Your task to perform on an android device: Empty the shopping cart on target.com. Image 0: 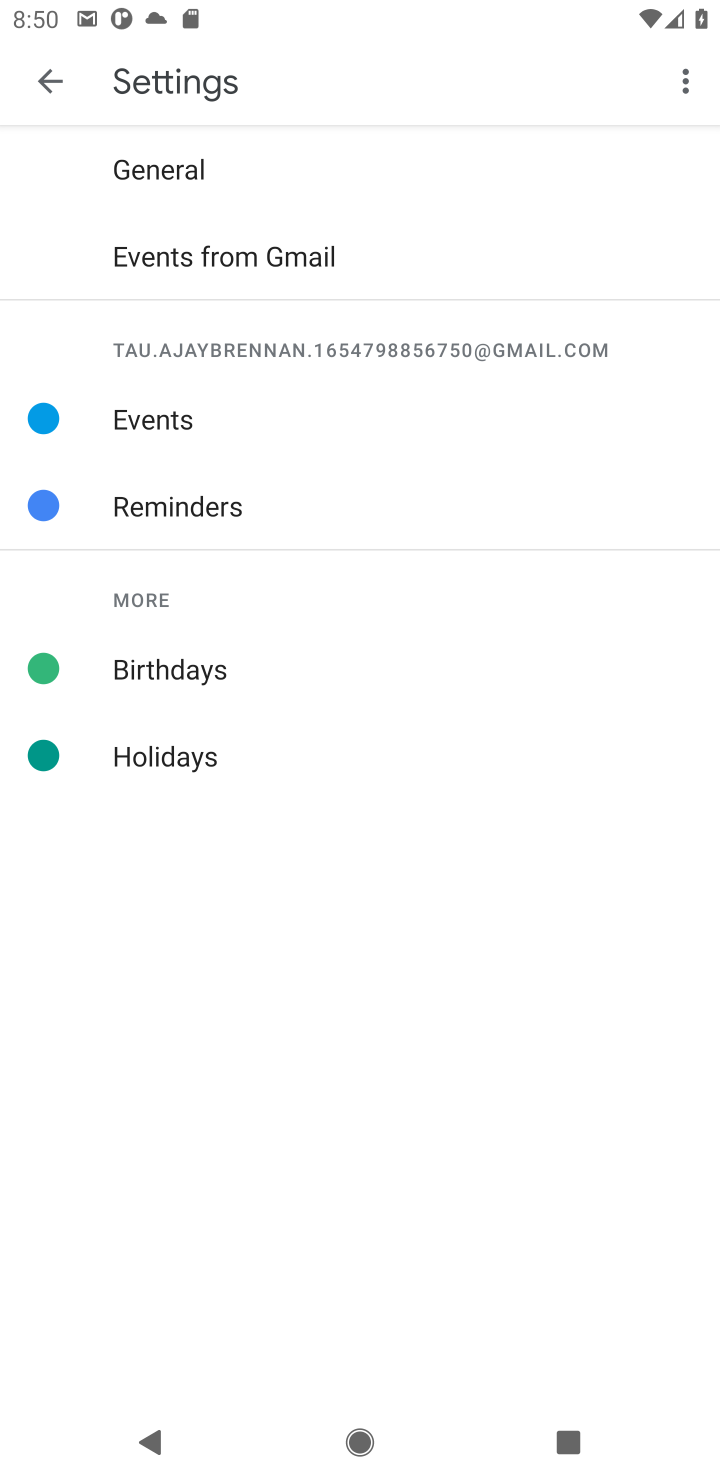
Step 0: click (507, 1172)
Your task to perform on an android device: Empty the shopping cart on target.com. Image 1: 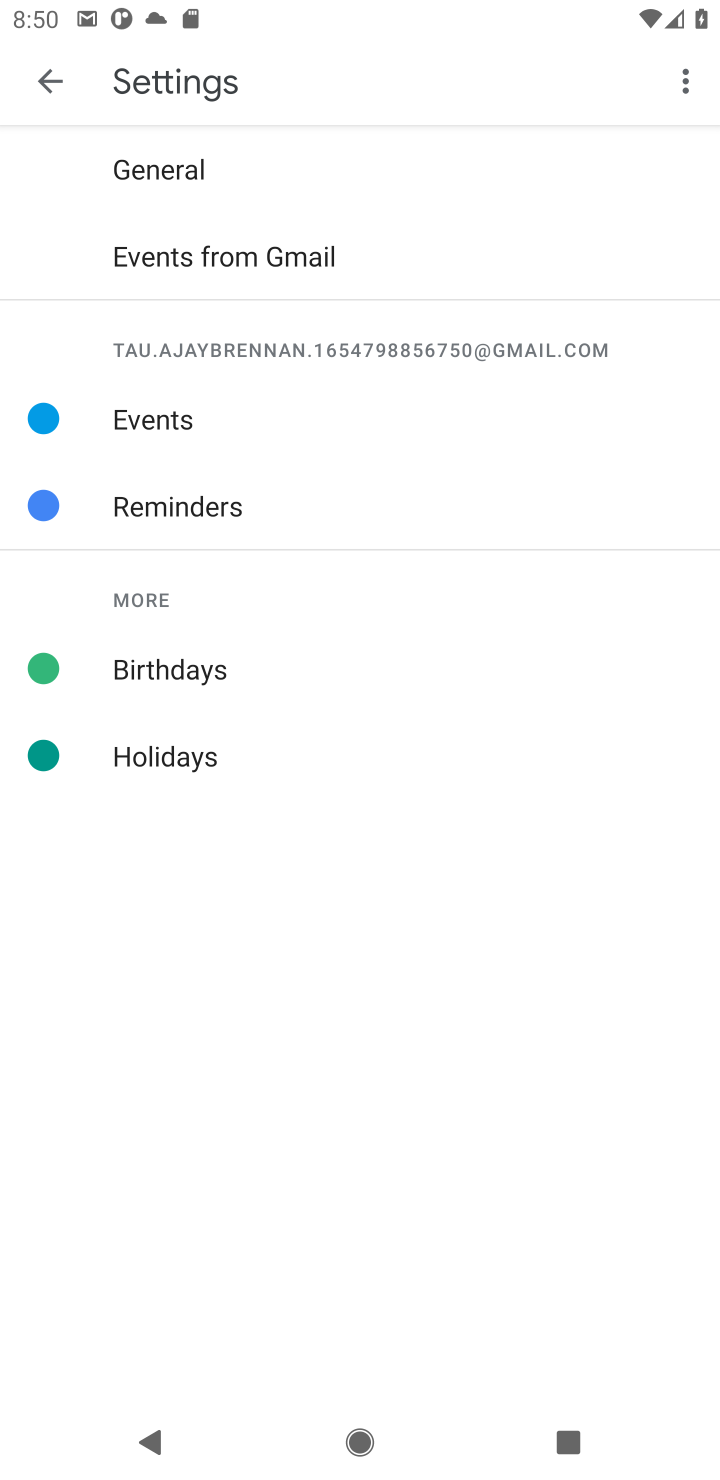
Step 1: press home button
Your task to perform on an android device: Empty the shopping cart on target.com. Image 2: 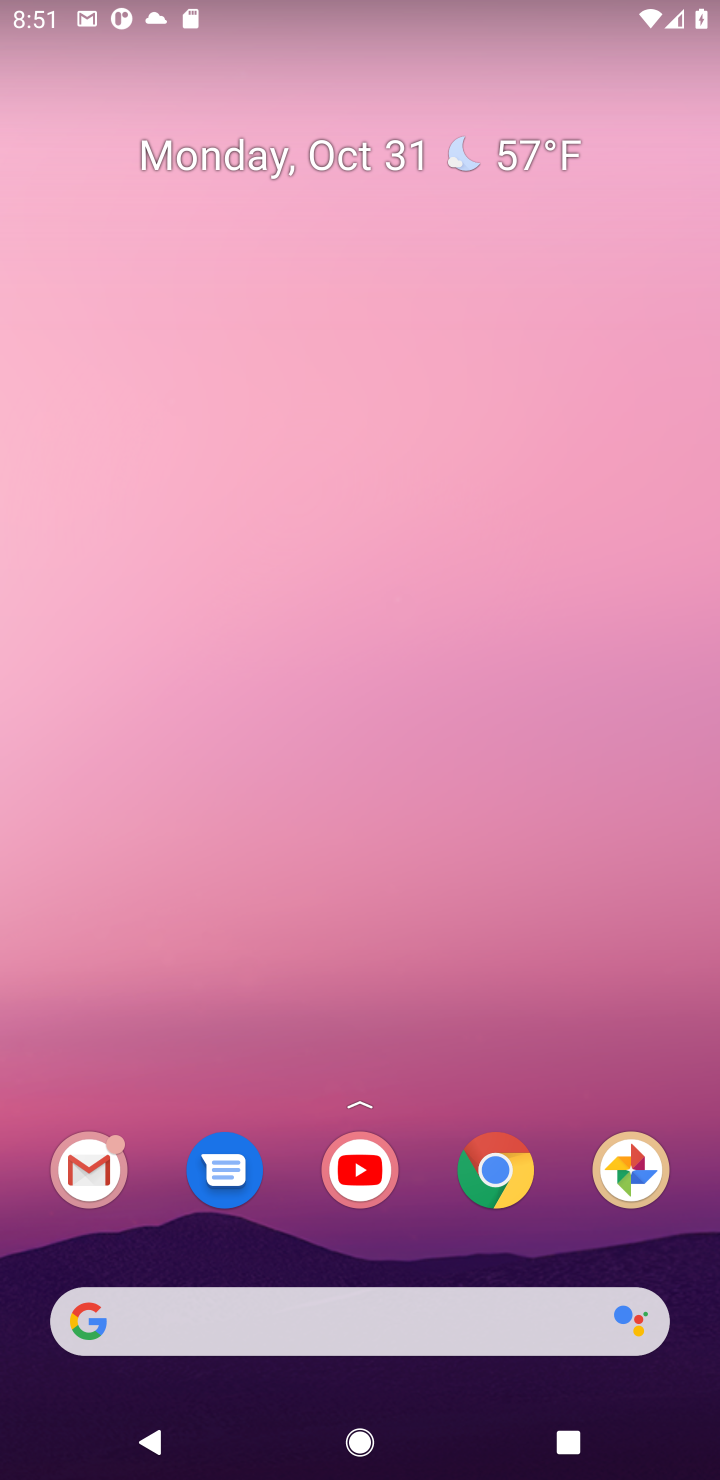
Step 2: click (461, 1150)
Your task to perform on an android device: Empty the shopping cart on target.com. Image 3: 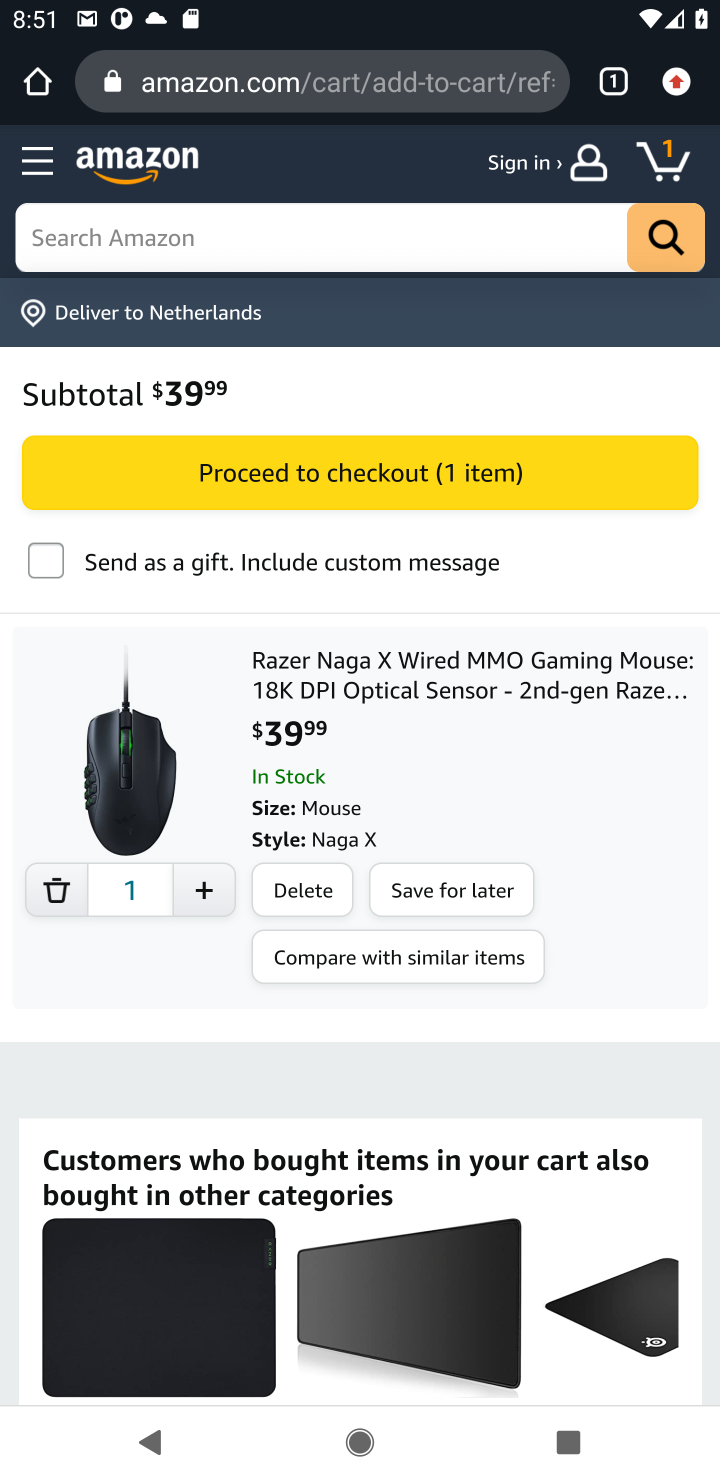
Step 3: click (322, 90)
Your task to perform on an android device: Empty the shopping cart on target.com. Image 4: 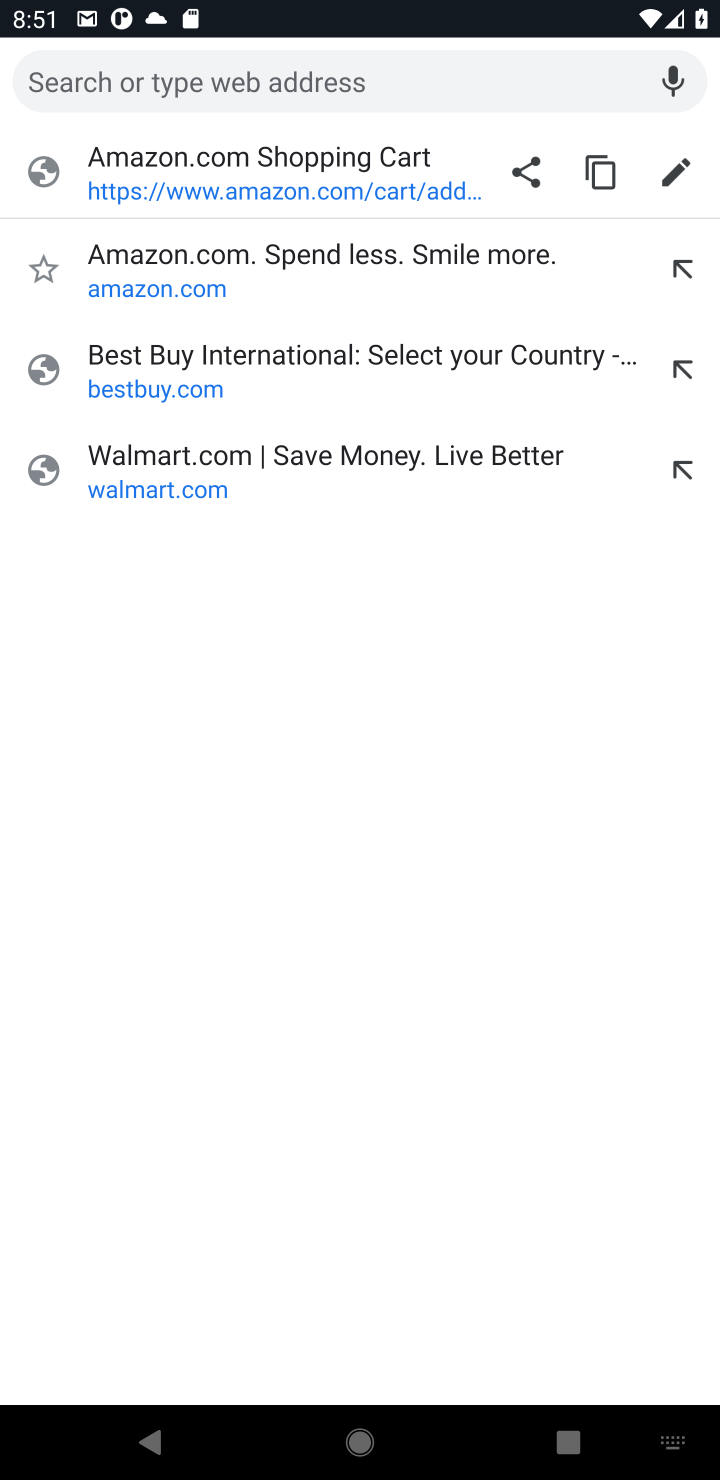
Step 4: type "ebay"
Your task to perform on an android device: Empty the shopping cart on target.com. Image 5: 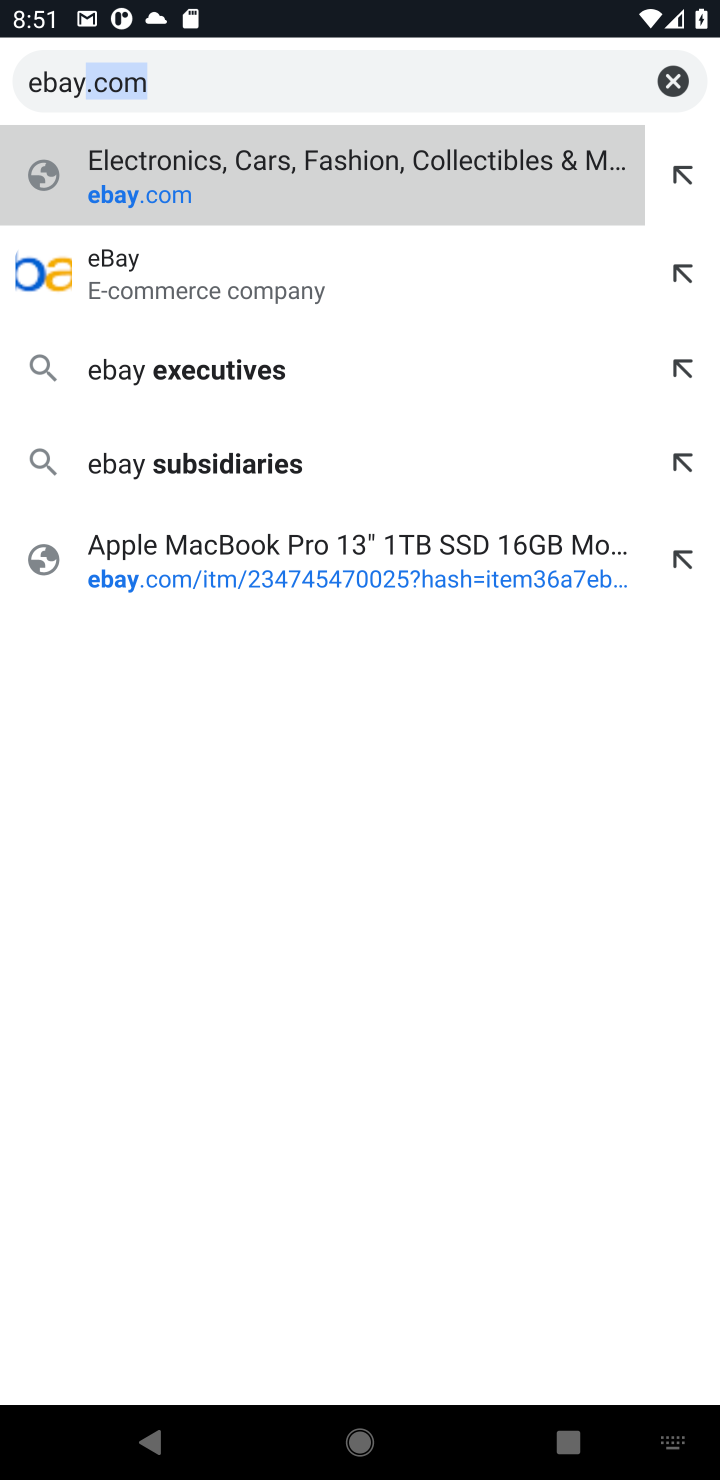
Step 5: click (370, 305)
Your task to perform on an android device: Empty the shopping cart on target.com. Image 6: 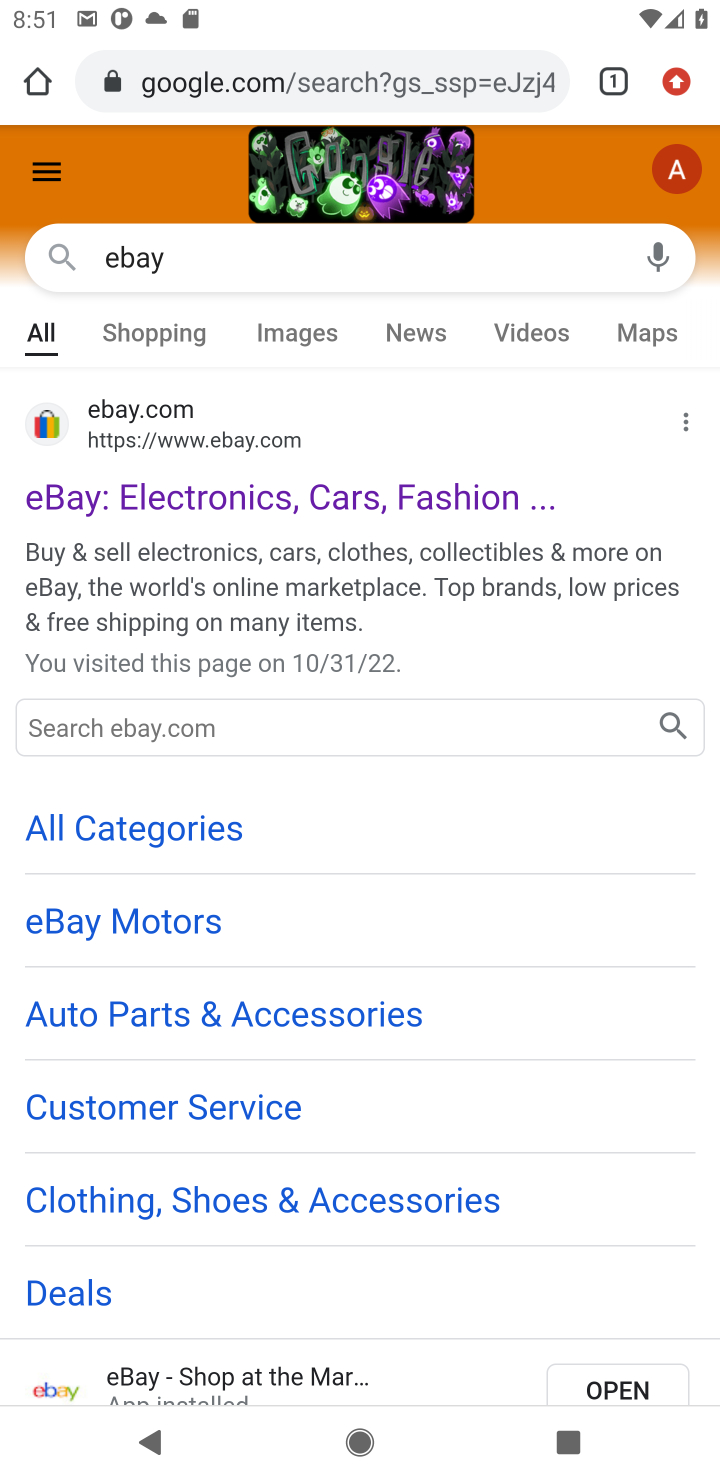
Step 6: click (414, 497)
Your task to perform on an android device: Empty the shopping cart on target.com. Image 7: 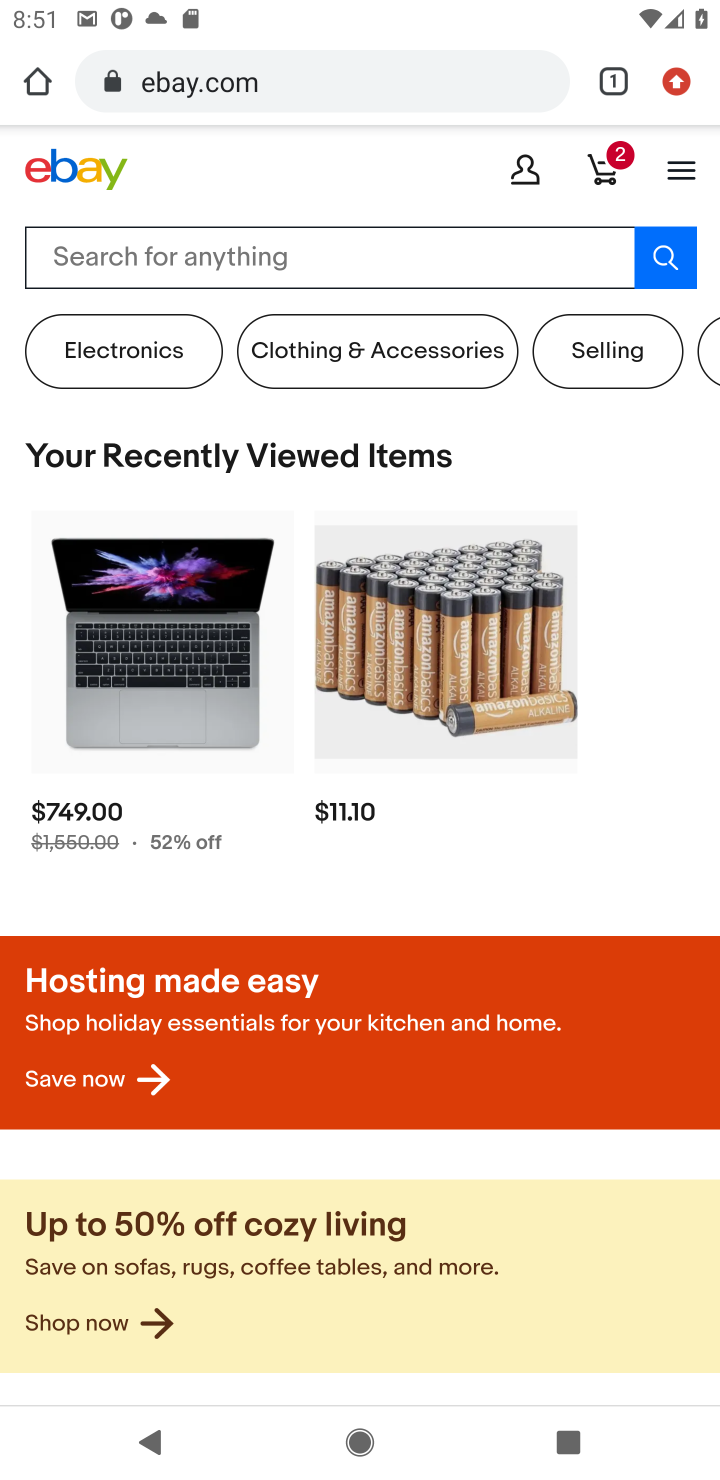
Step 7: click (618, 144)
Your task to perform on an android device: Empty the shopping cart on target.com. Image 8: 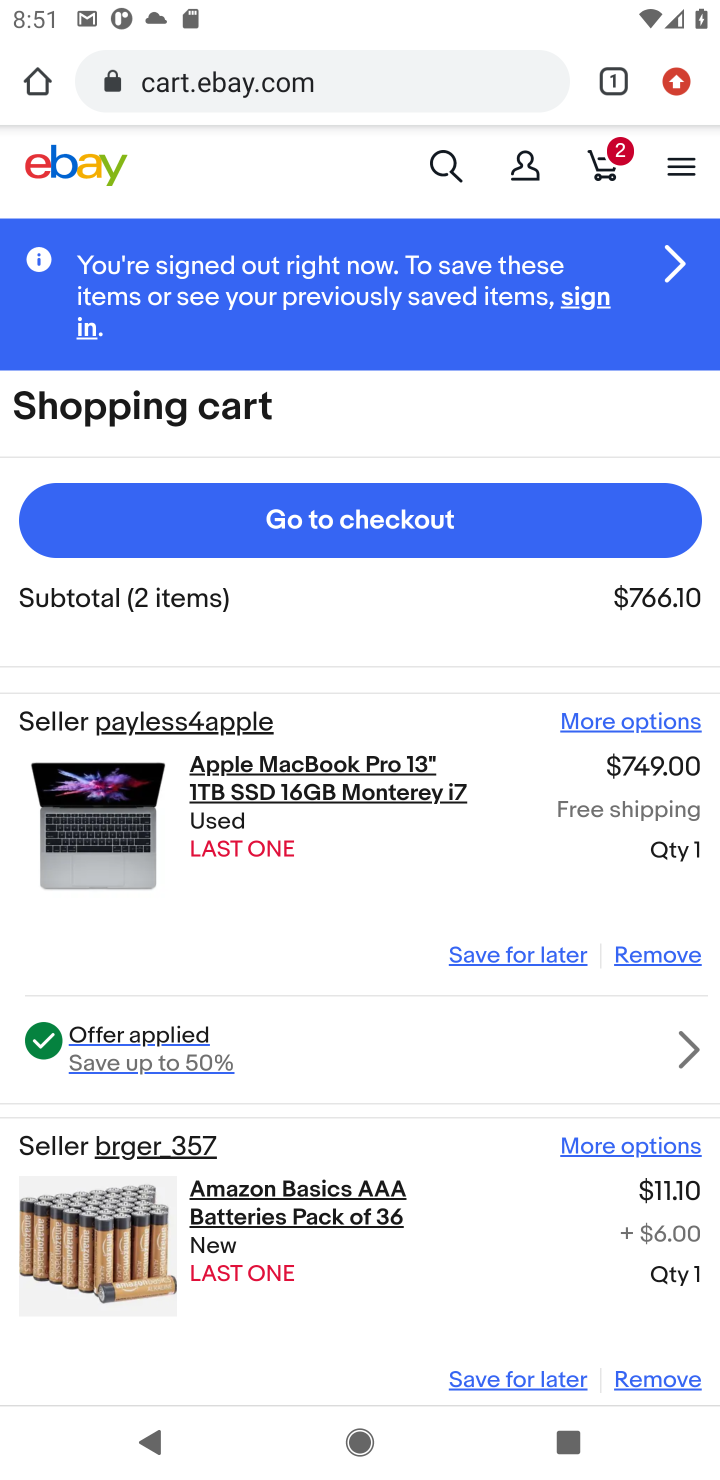
Step 8: click (641, 953)
Your task to perform on an android device: Empty the shopping cart on target.com. Image 9: 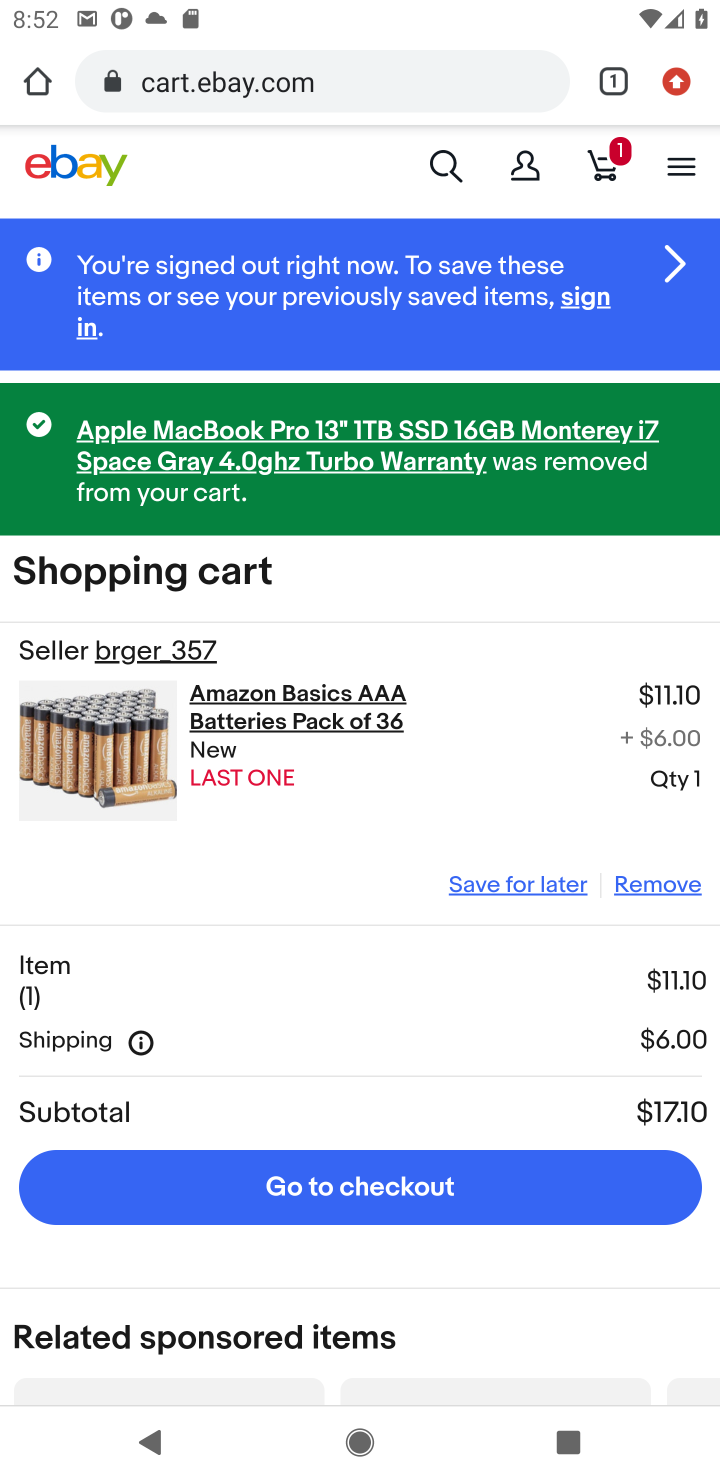
Step 9: click (643, 889)
Your task to perform on an android device: Empty the shopping cart on target.com. Image 10: 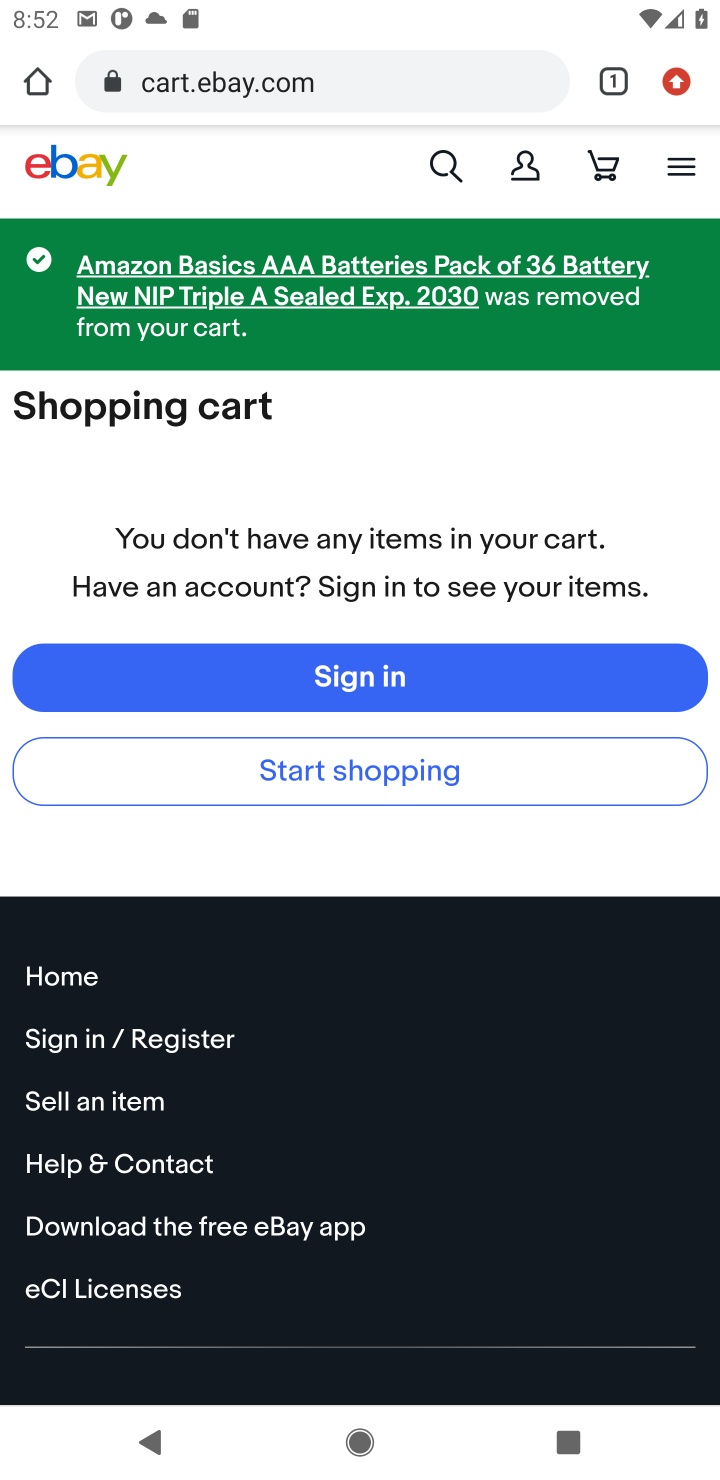
Step 10: task complete